Your task to perform on an android device: Open display settings Image 0: 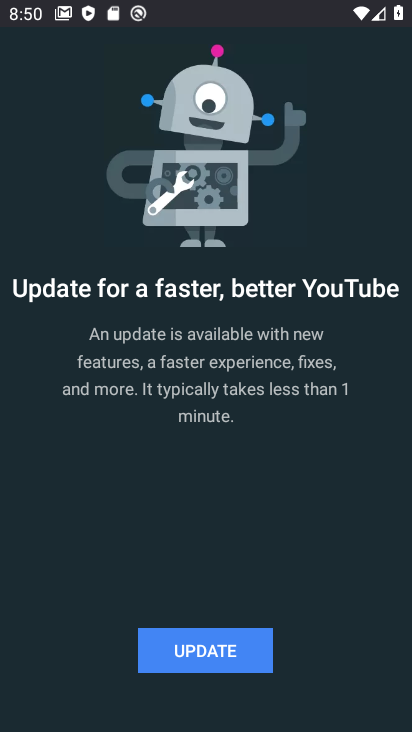
Step 0: press home button
Your task to perform on an android device: Open display settings Image 1: 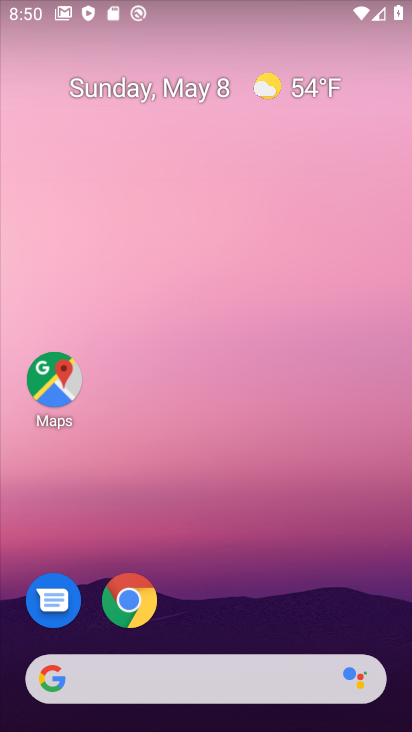
Step 1: drag from (240, 609) to (194, 52)
Your task to perform on an android device: Open display settings Image 2: 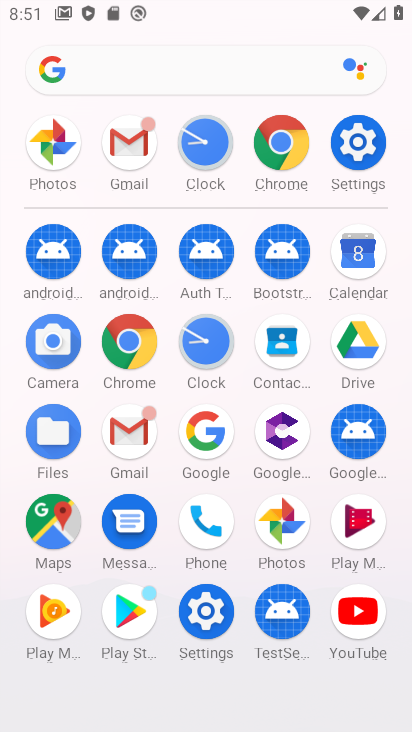
Step 2: click (343, 123)
Your task to perform on an android device: Open display settings Image 3: 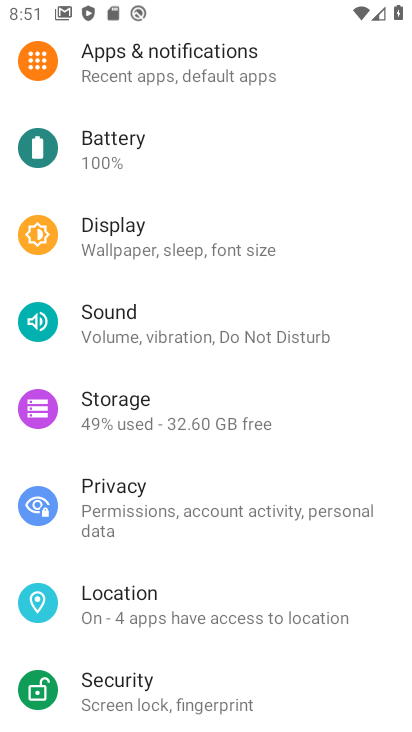
Step 3: click (108, 221)
Your task to perform on an android device: Open display settings Image 4: 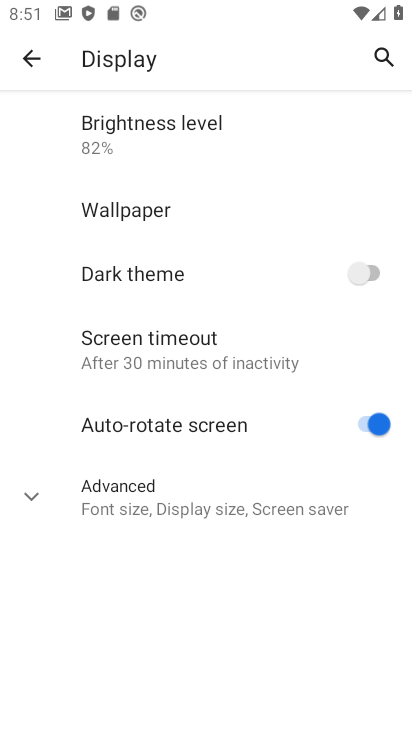
Step 4: task complete